Your task to perform on an android device: Go to wifi settings Image 0: 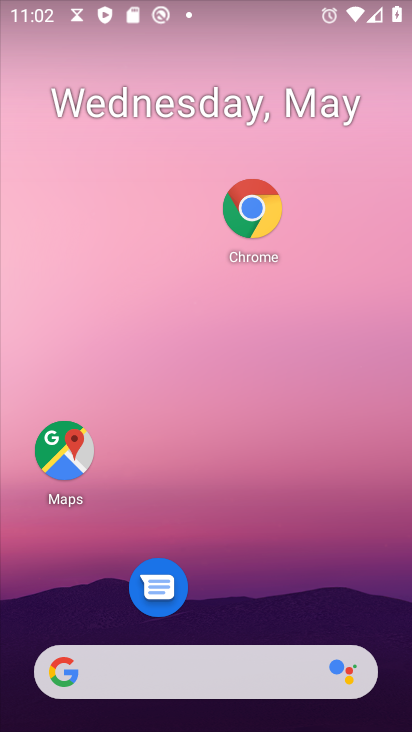
Step 0: drag from (213, 618) to (325, 17)
Your task to perform on an android device: Go to wifi settings Image 1: 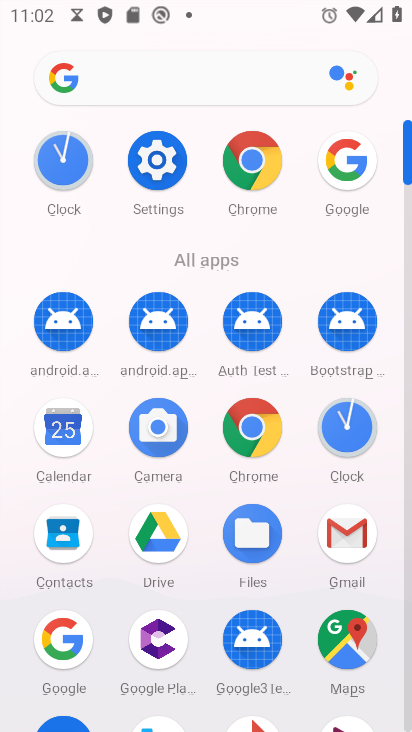
Step 1: click (154, 169)
Your task to perform on an android device: Go to wifi settings Image 2: 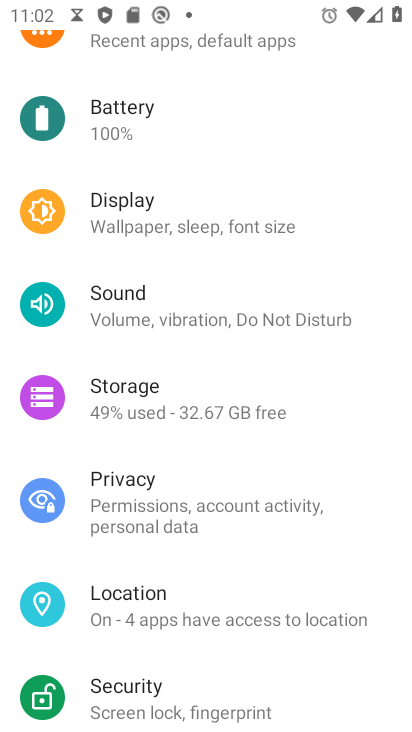
Step 2: drag from (241, 180) to (114, 672)
Your task to perform on an android device: Go to wifi settings Image 3: 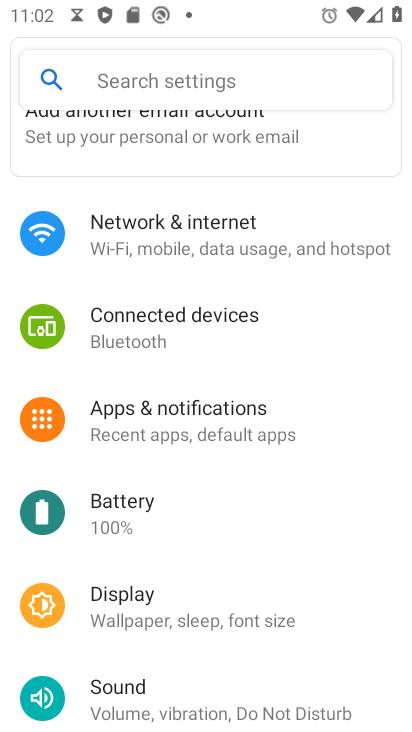
Step 3: click (155, 232)
Your task to perform on an android device: Go to wifi settings Image 4: 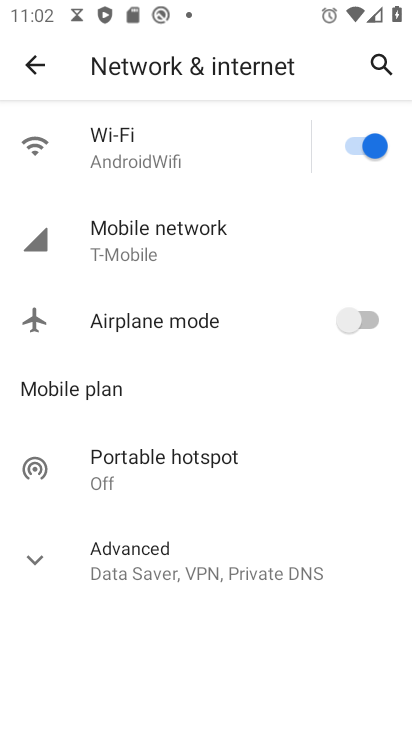
Step 4: task complete